Your task to perform on an android device: Toggle the flashlight Image 0: 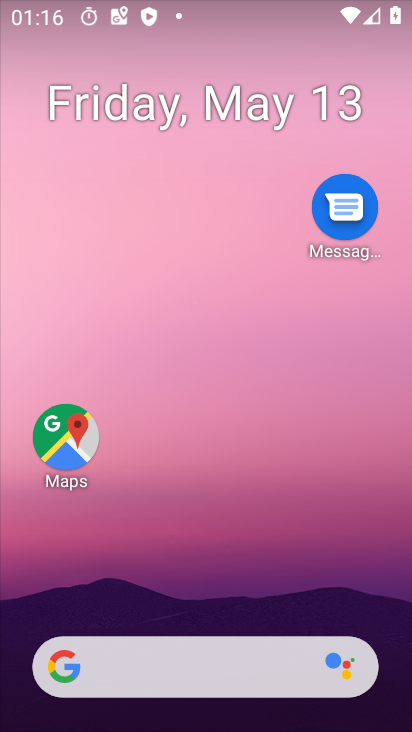
Step 0: press home button
Your task to perform on an android device: Toggle the flashlight Image 1: 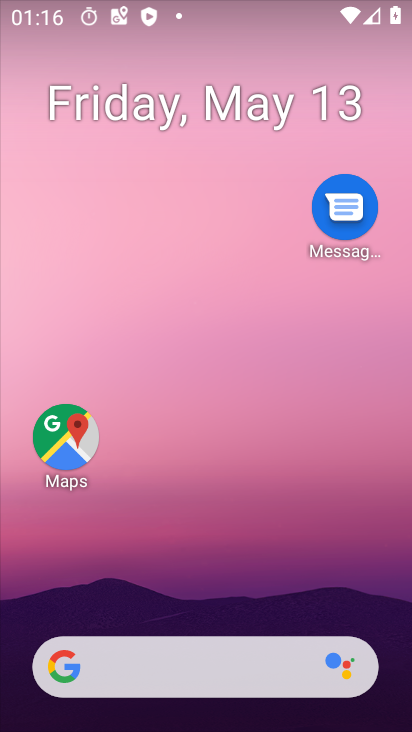
Step 1: task complete